Your task to perform on an android device: turn on the 24-hour format for clock Image 0: 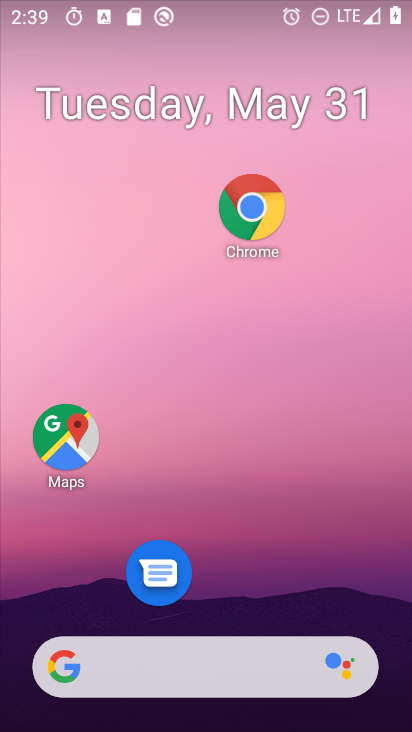
Step 0: drag from (231, 661) to (260, 272)
Your task to perform on an android device: turn on the 24-hour format for clock Image 1: 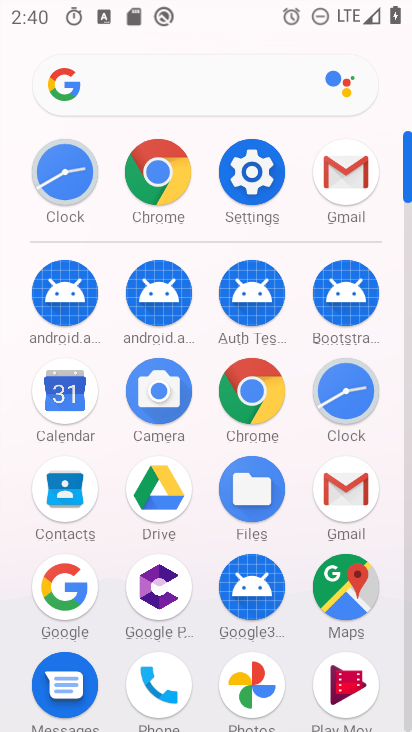
Step 1: click (344, 408)
Your task to perform on an android device: turn on the 24-hour format for clock Image 2: 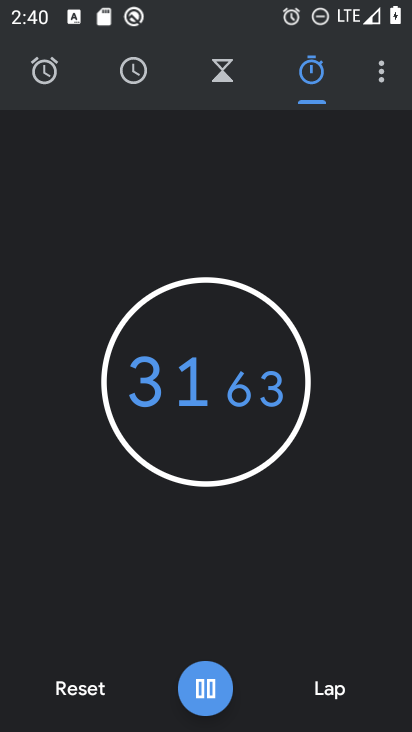
Step 2: click (383, 76)
Your task to perform on an android device: turn on the 24-hour format for clock Image 3: 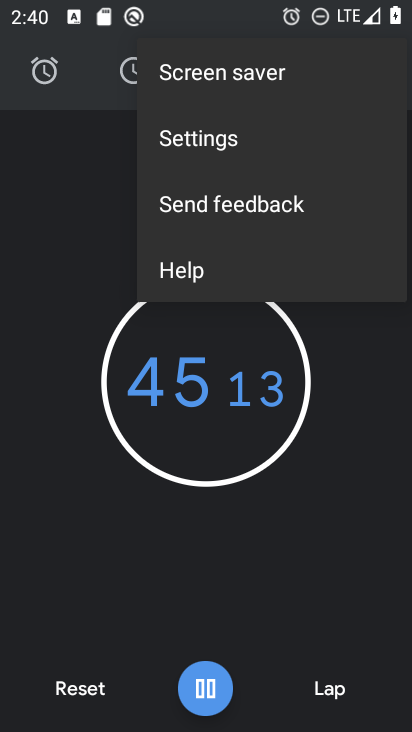
Step 3: click (205, 136)
Your task to perform on an android device: turn on the 24-hour format for clock Image 4: 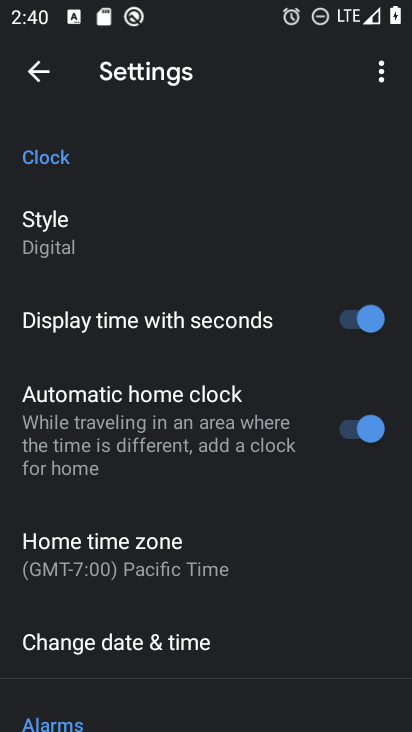
Step 4: drag from (235, 629) to (341, 287)
Your task to perform on an android device: turn on the 24-hour format for clock Image 5: 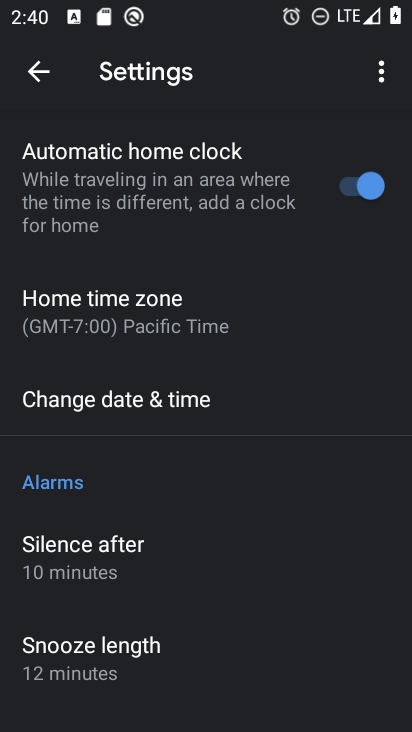
Step 5: click (181, 408)
Your task to perform on an android device: turn on the 24-hour format for clock Image 6: 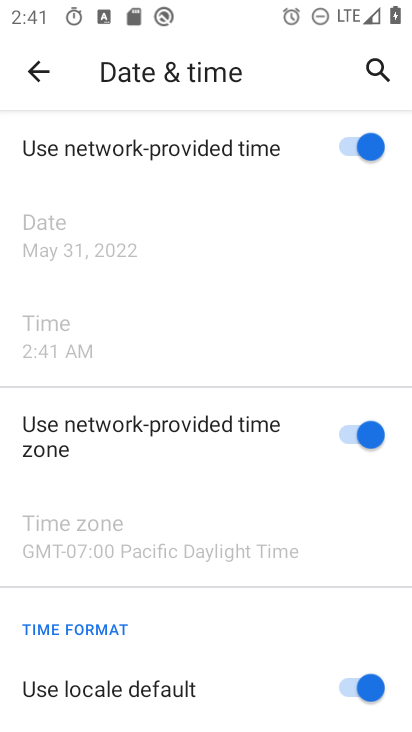
Step 6: task complete